Your task to perform on an android device: open app "Airtel Thanks" Image 0: 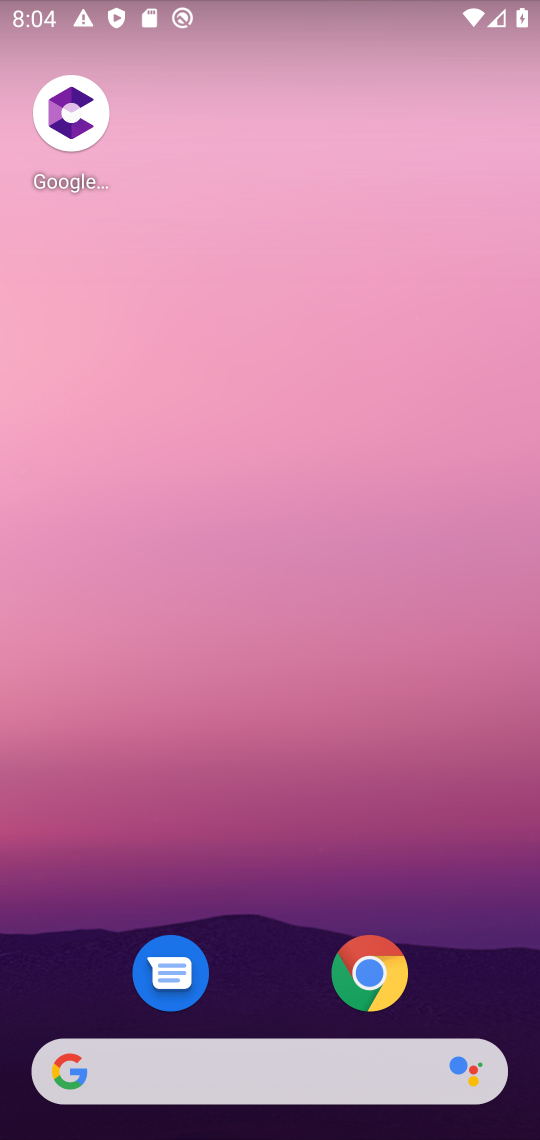
Step 0: drag from (364, 928) to (383, 247)
Your task to perform on an android device: open app "Airtel Thanks" Image 1: 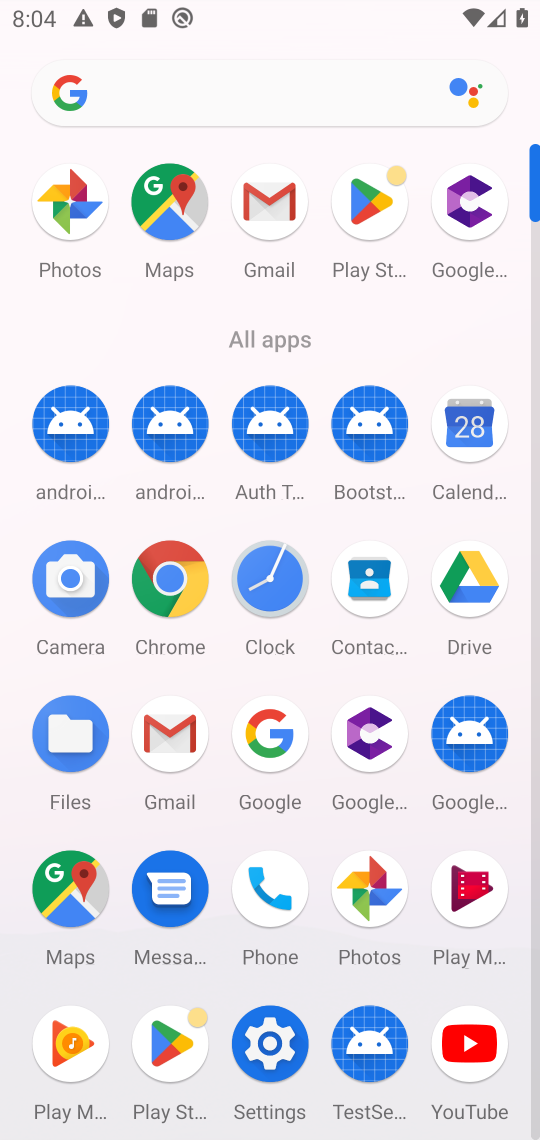
Step 1: task complete